Your task to perform on an android device: turn off priority inbox in the gmail app Image 0: 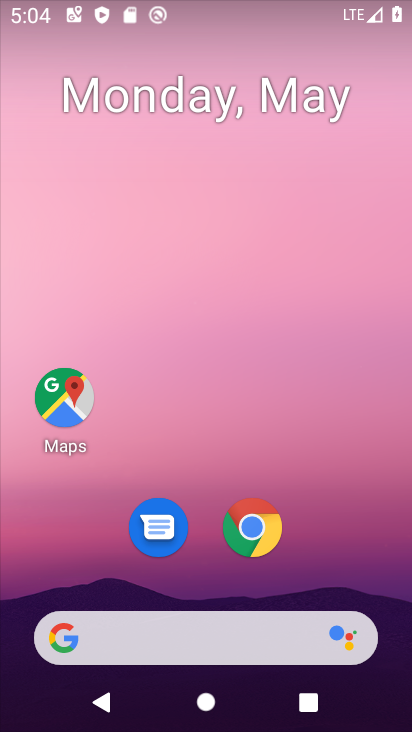
Step 0: drag from (396, 690) to (343, 223)
Your task to perform on an android device: turn off priority inbox in the gmail app Image 1: 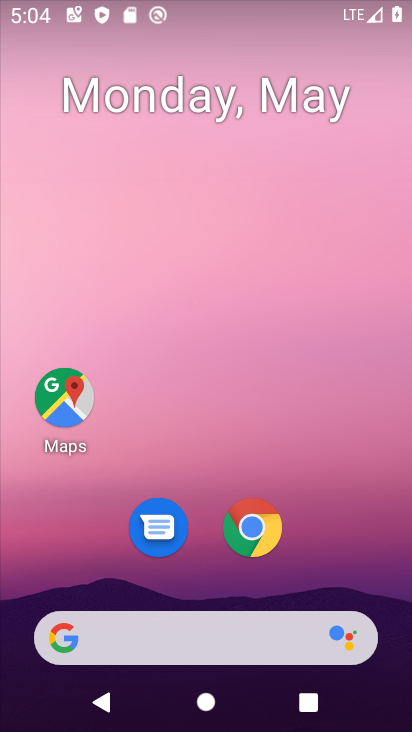
Step 1: drag from (383, 701) to (361, 194)
Your task to perform on an android device: turn off priority inbox in the gmail app Image 2: 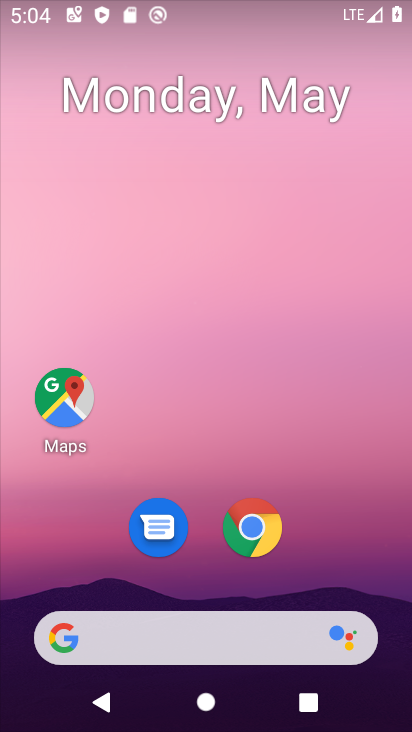
Step 2: drag from (392, 669) to (365, 148)
Your task to perform on an android device: turn off priority inbox in the gmail app Image 3: 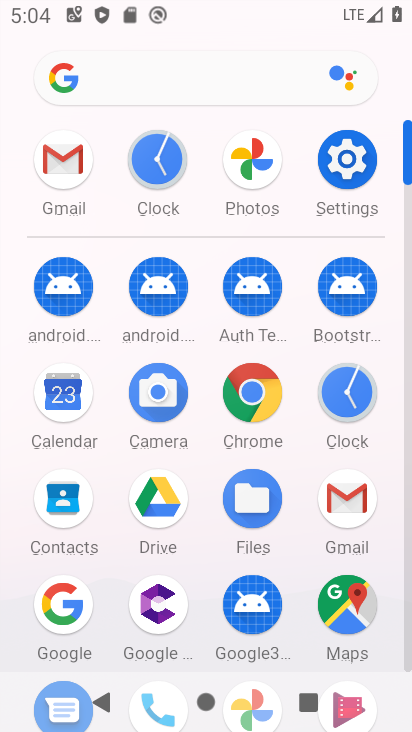
Step 3: click (62, 172)
Your task to perform on an android device: turn off priority inbox in the gmail app Image 4: 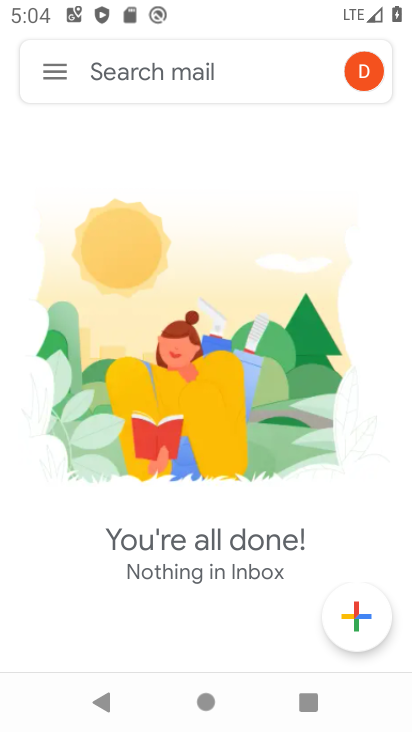
Step 4: click (59, 74)
Your task to perform on an android device: turn off priority inbox in the gmail app Image 5: 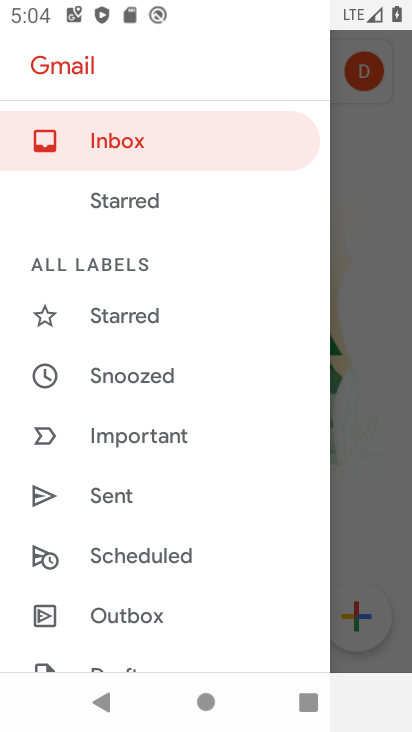
Step 5: drag from (240, 619) to (230, 248)
Your task to perform on an android device: turn off priority inbox in the gmail app Image 6: 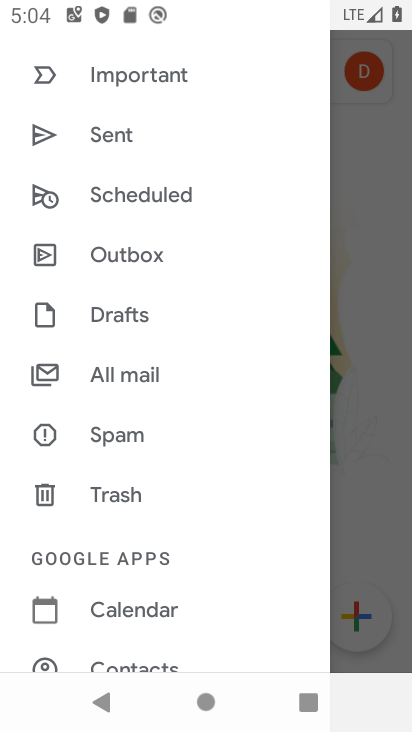
Step 6: drag from (199, 572) to (149, 306)
Your task to perform on an android device: turn off priority inbox in the gmail app Image 7: 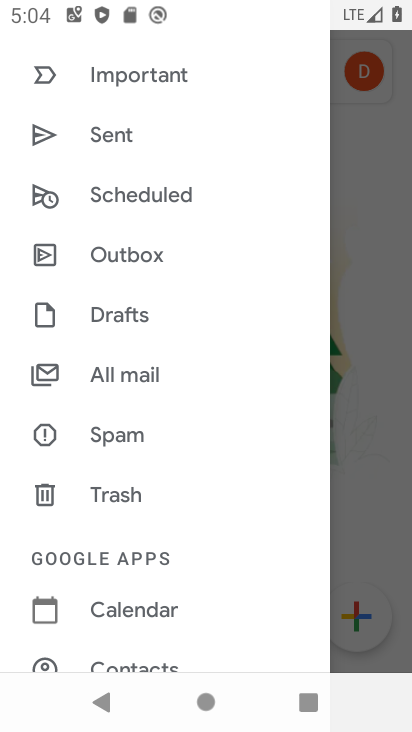
Step 7: drag from (225, 566) to (237, 242)
Your task to perform on an android device: turn off priority inbox in the gmail app Image 8: 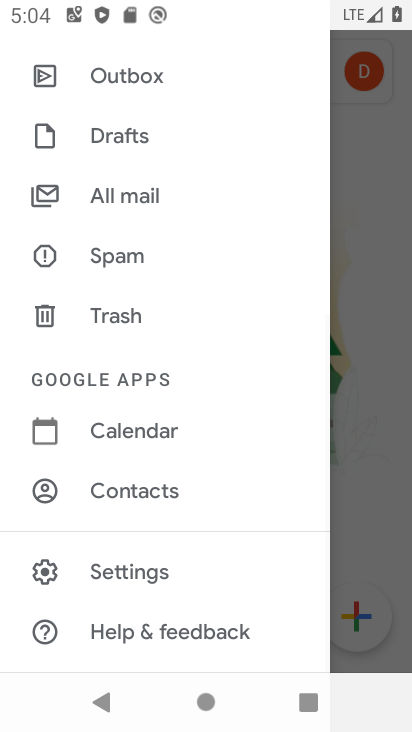
Step 8: click (127, 571)
Your task to perform on an android device: turn off priority inbox in the gmail app Image 9: 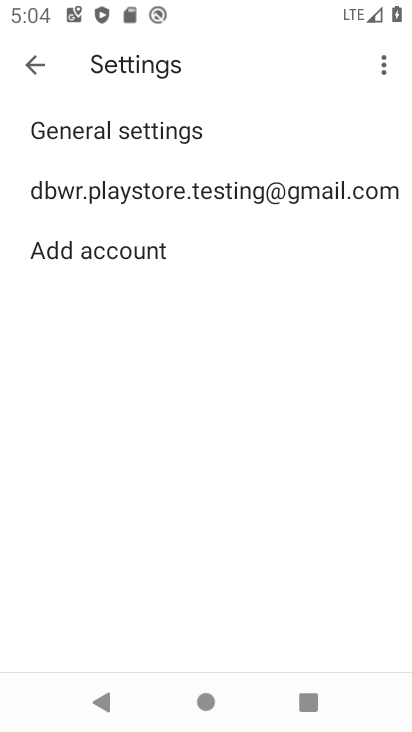
Step 9: click (152, 182)
Your task to perform on an android device: turn off priority inbox in the gmail app Image 10: 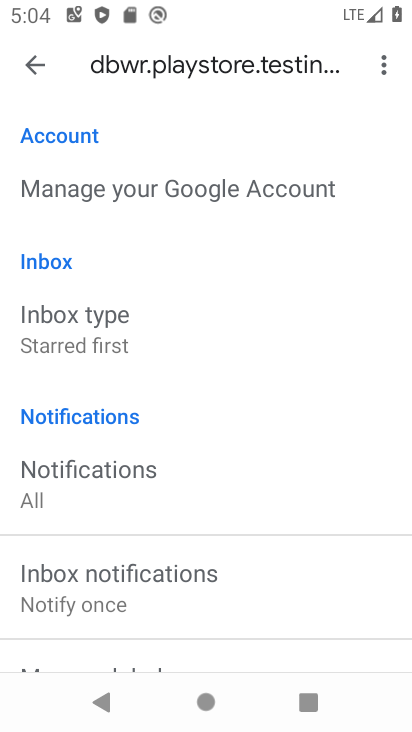
Step 10: click (78, 339)
Your task to perform on an android device: turn off priority inbox in the gmail app Image 11: 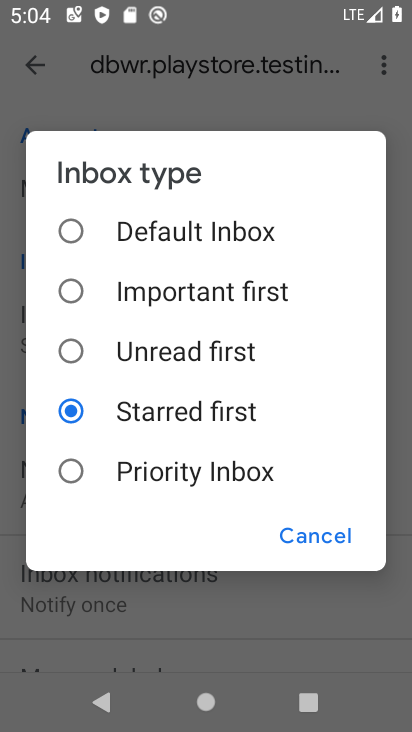
Step 11: click (70, 233)
Your task to perform on an android device: turn off priority inbox in the gmail app Image 12: 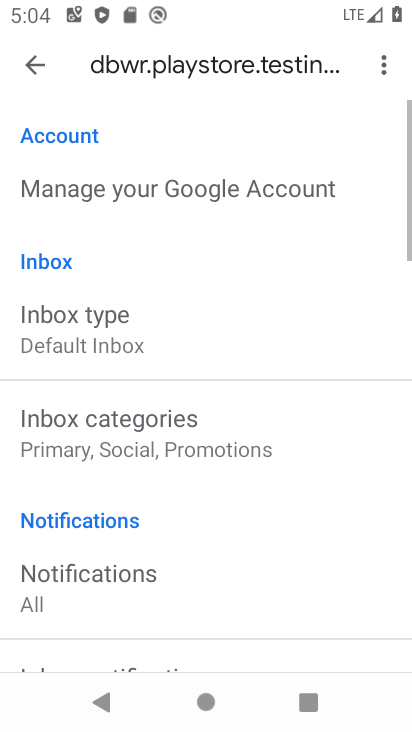
Step 12: task complete